Your task to perform on an android device: Open Google Maps Image 0: 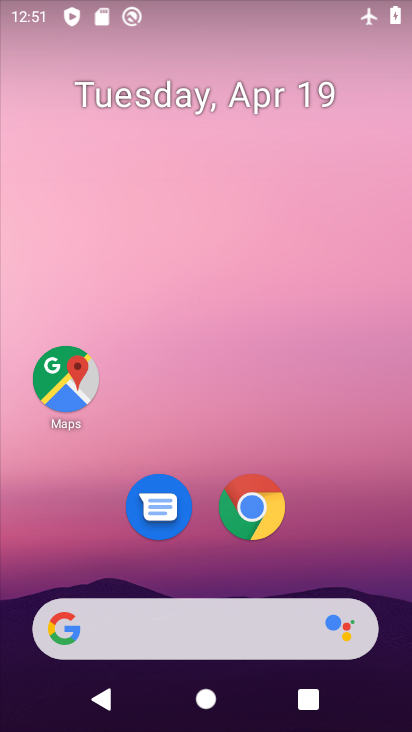
Step 0: drag from (207, 571) to (237, 66)
Your task to perform on an android device: Open Google Maps Image 1: 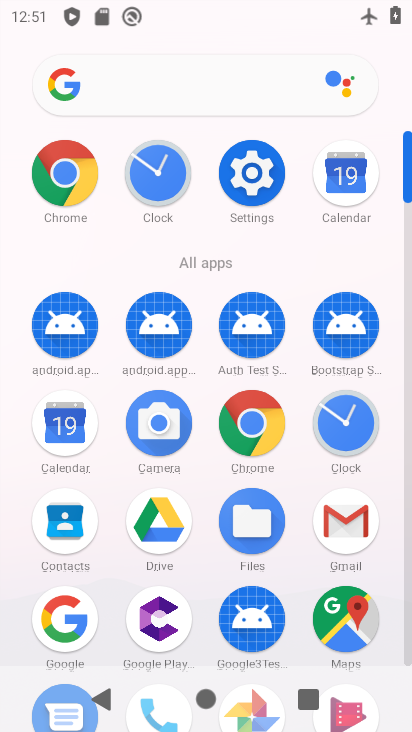
Step 1: click (344, 614)
Your task to perform on an android device: Open Google Maps Image 2: 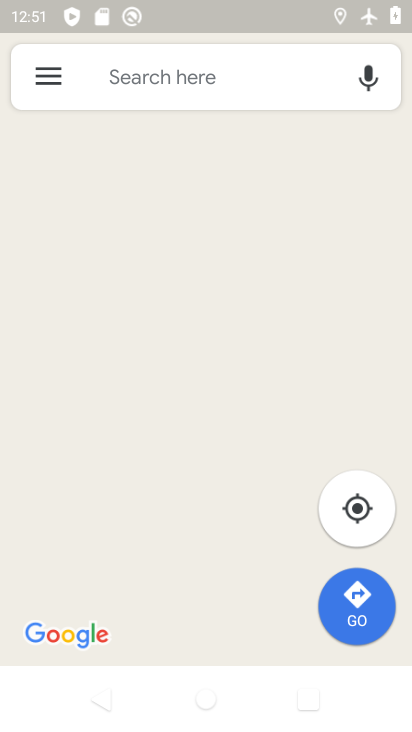
Step 2: click (159, 85)
Your task to perform on an android device: Open Google Maps Image 3: 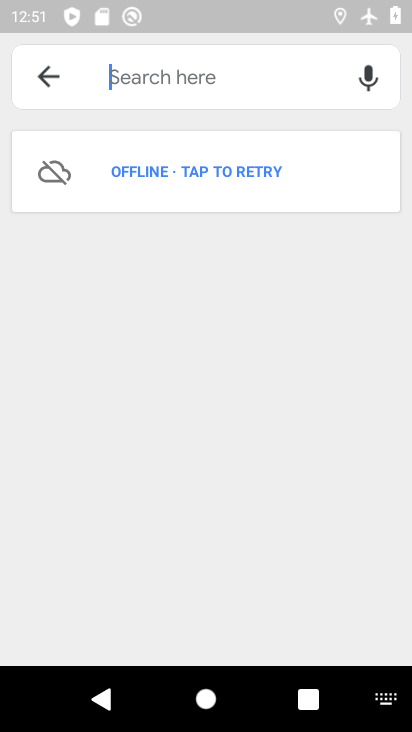
Step 3: click (51, 79)
Your task to perform on an android device: Open Google Maps Image 4: 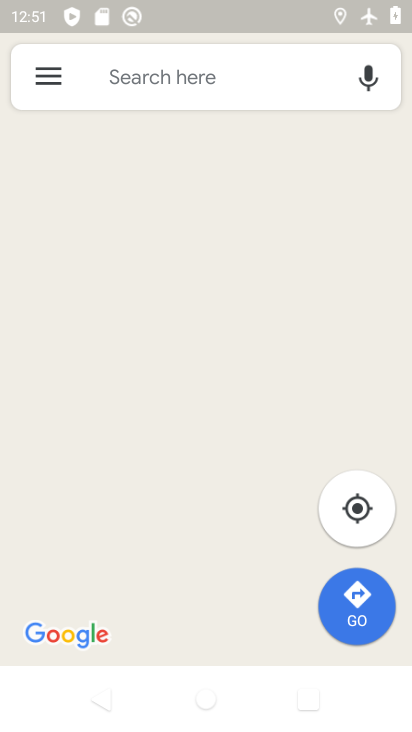
Step 4: click (48, 71)
Your task to perform on an android device: Open Google Maps Image 5: 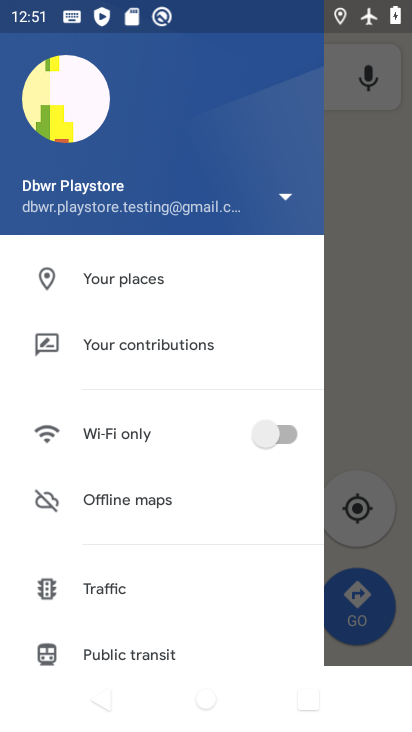
Step 5: task complete